Your task to perform on an android device: Go to CNN.com Image 0: 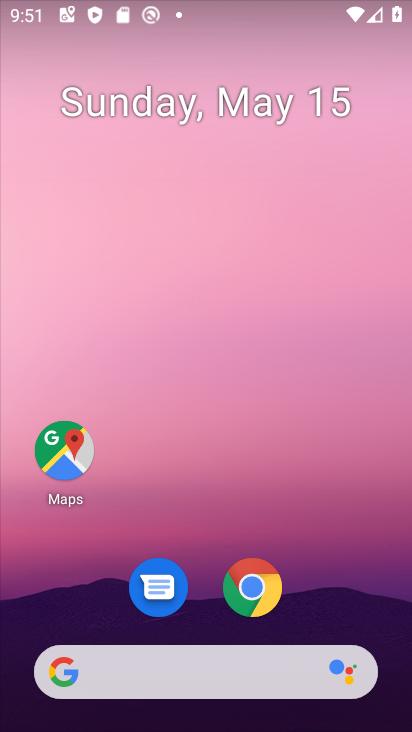
Step 0: drag from (383, 626) to (299, 142)
Your task to perform on an android device: Go to CNN.com Image 1: 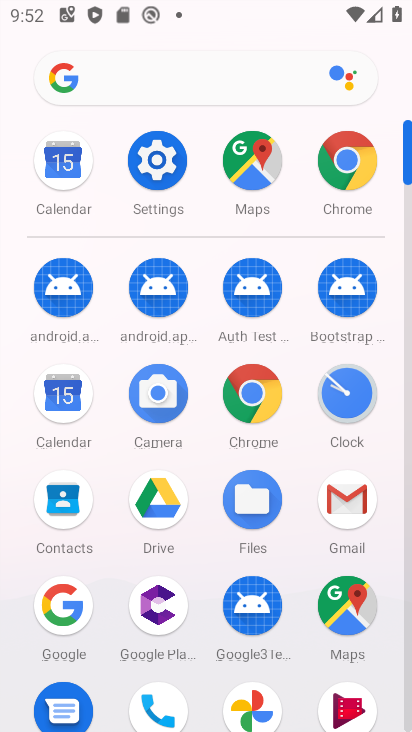
Step 1: click (235, 393)
Your task to perform on an android device: Go to CNN.com Image 2: 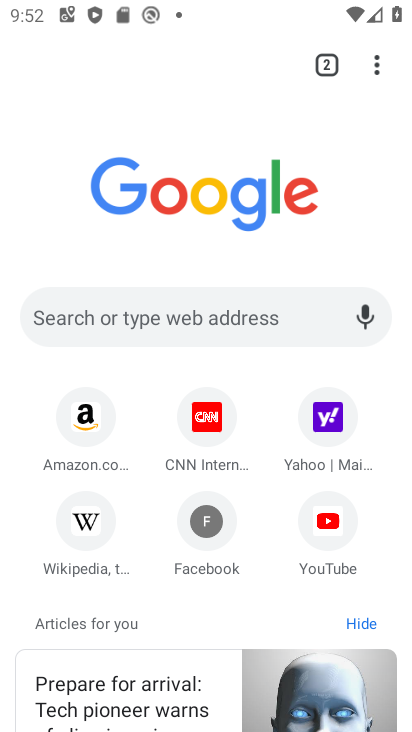
Step 2: click (195, 437)
Your task to perform on an android device: Go to CNN.com Image 3: 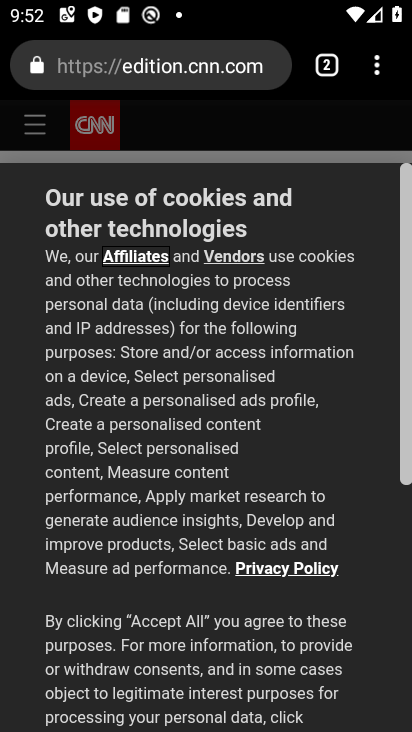
Step 3: task complete